Your task to perform on an android device: turn on priority inbox in the gmail app Image 0: 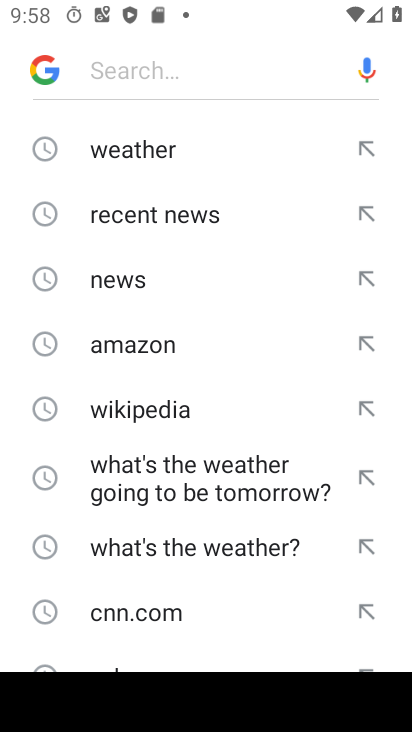
Step 0: press home button
Your task to perform on an android device: turn on priority inbox in the gmail app Image 1: 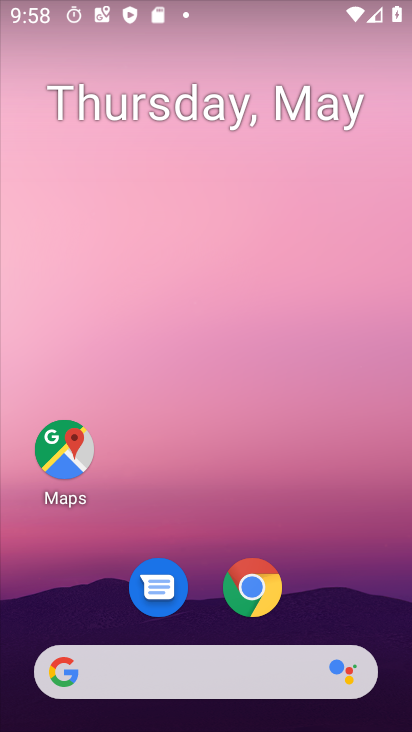
Step 1: drag from (348, 595) to (321, 7)
Your task to perform on an android device: turn on priority inbox in the gmail app Image 2: 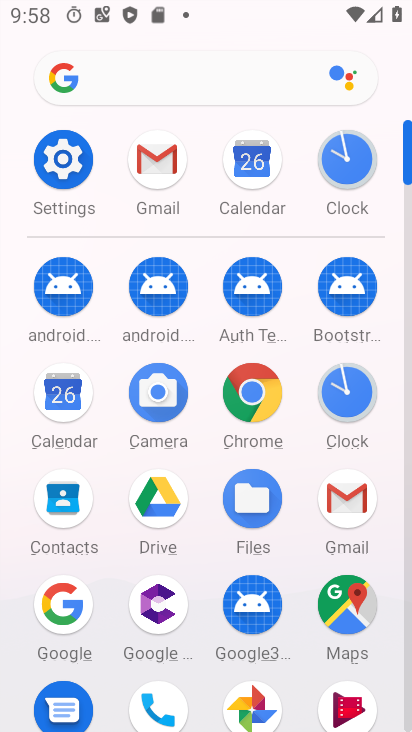
Step 2: click (168, 168)
Your task to perform on an android device: turn on priority inbox in the gmail app Image 3: 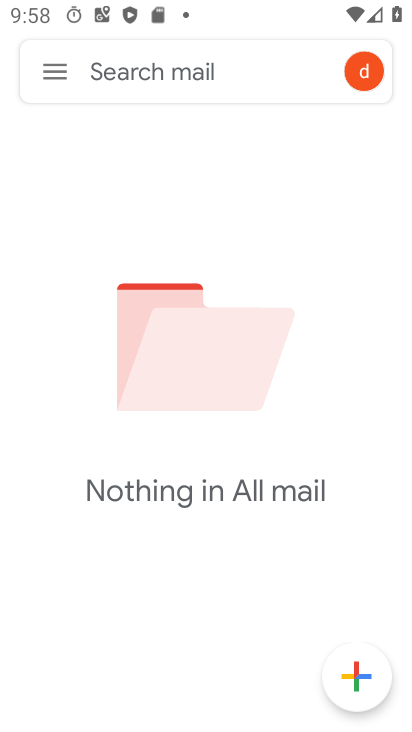
Step 3: click (57, 78)
Your task to perform on an android device: turn on priority inbox in the gmail app Image 4: 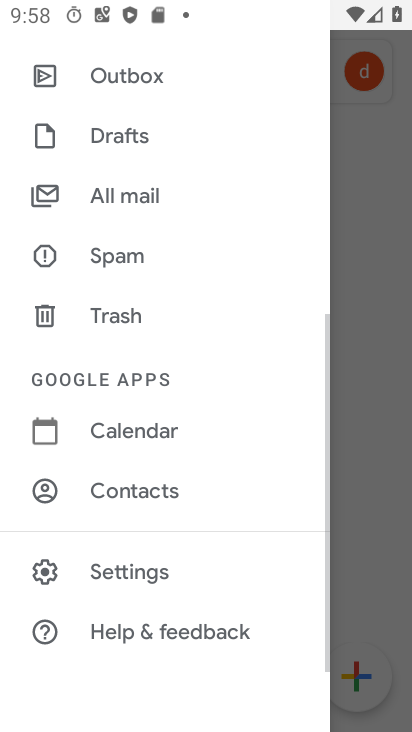
Step 4: click (119, 577)
Your task to perform on an android device: turn on priority inbox in the gmail app Image 5: 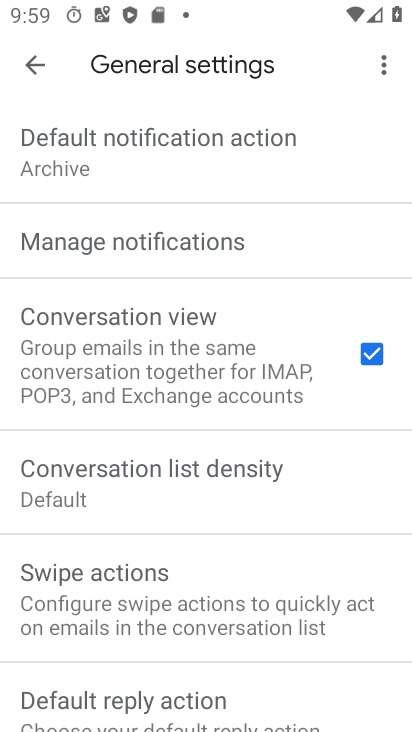
Step 5: click (33, 69)
Your task to perform on an android device: turn on priority inbox in the gmail app Image 6: 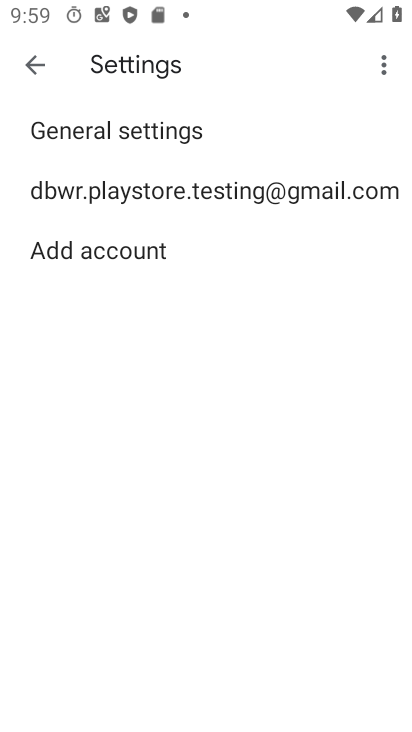
Step 6: click (76, 188)
Your task to perform on an android device: turn on priority inbox in the gmail app Image 7: 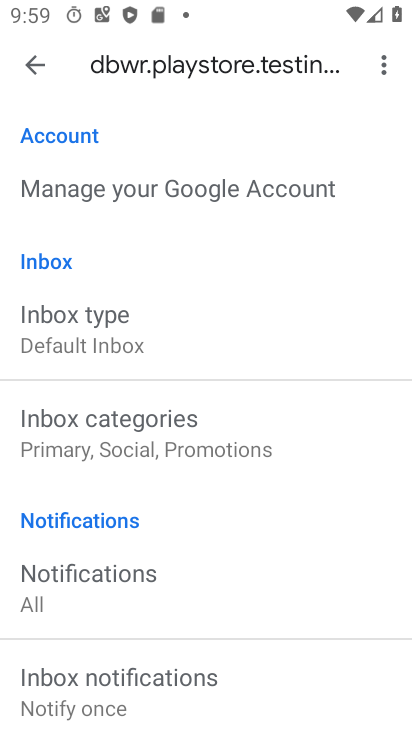
Step 7: click (83, 350)
Your task to perform on an android device: turn on priority inbox in the gmail app Image 8: 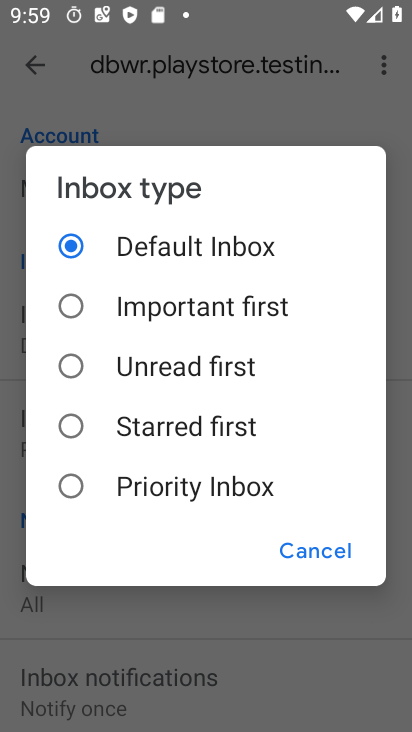
Step 8: click (66, 483)
Your task to perform on an android device: turn on priority inbox in the gmail app Image 9: 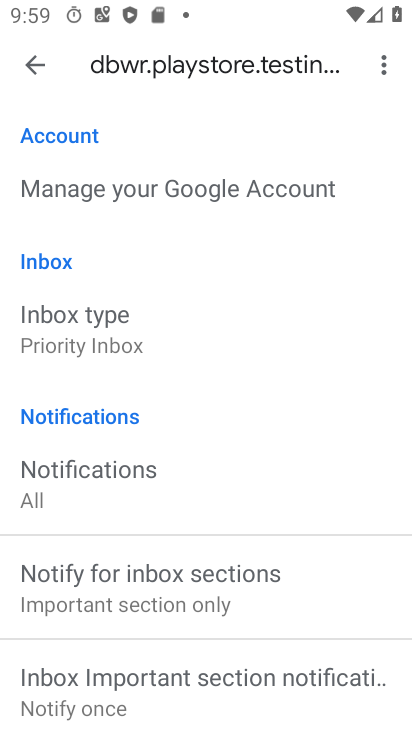
Step 9: task complete